Your task to perform on an android device: Go to notification settings Image 0: 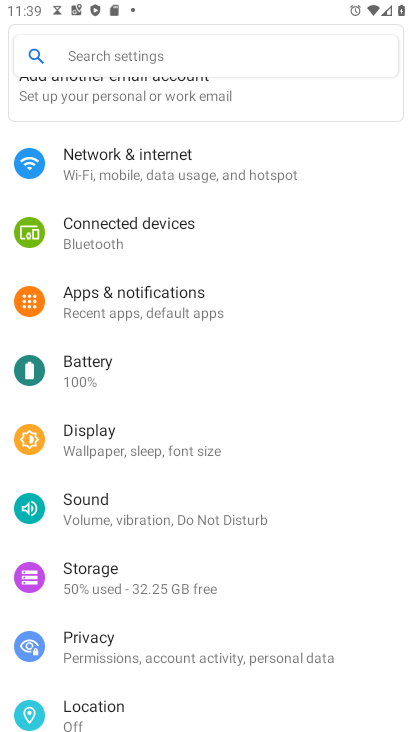
Step 0: click (97, 299)
Your task to perform on an android device: Go to notification settings Image 1: 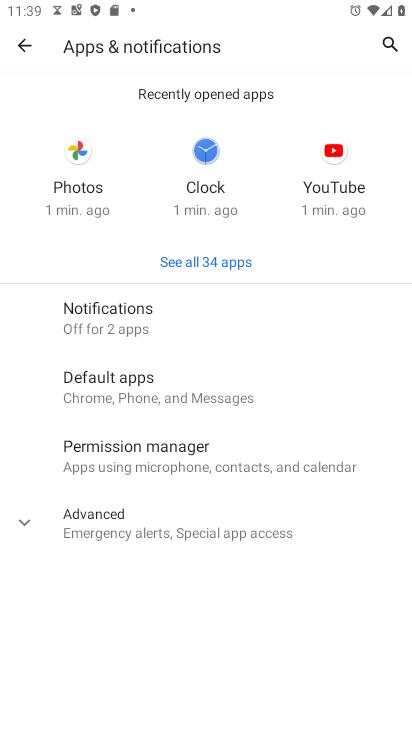
Step 1: task complete